Your task to perform on an android device: open app "Truecaller" (install if not already installed) Image 0: 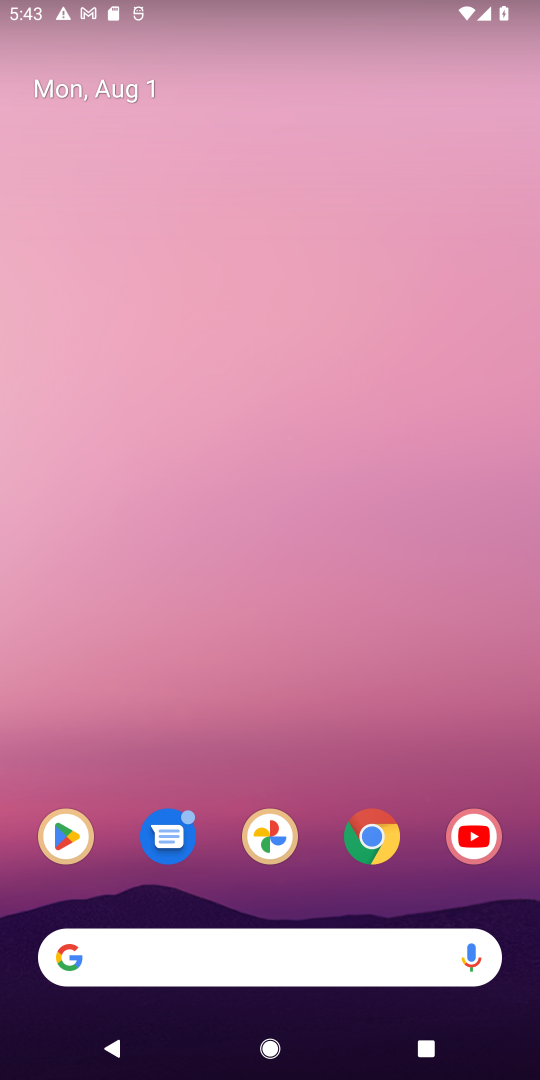
Step 0: click (71, 837)
Your task to perform on an android device: open app "Truecaller" (install if not already installed) Image 1: 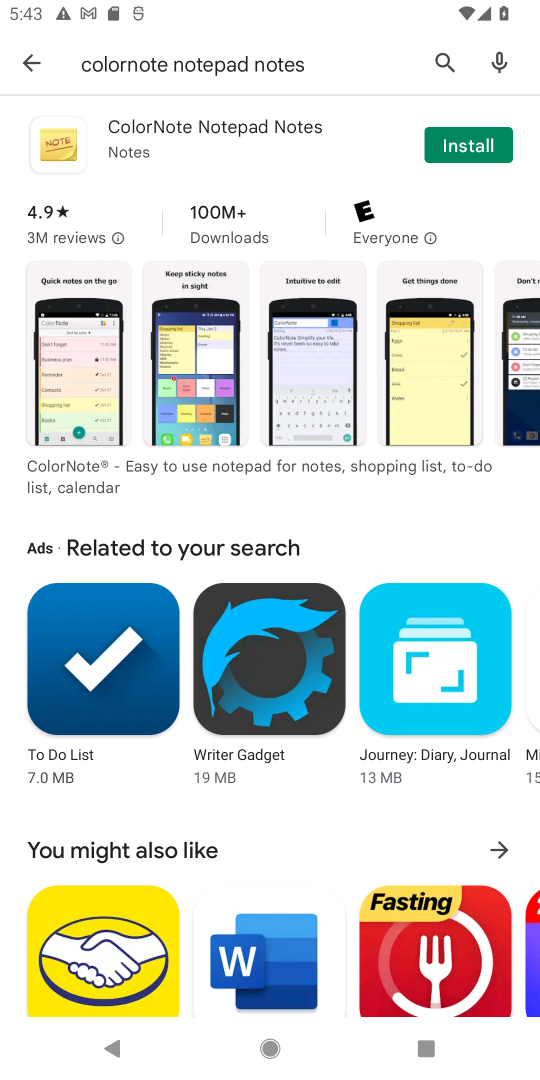
Step 1: click (440, 59)
Your task to perform on an android device: open app "Truecaller" (install if not already installed) Image 2: 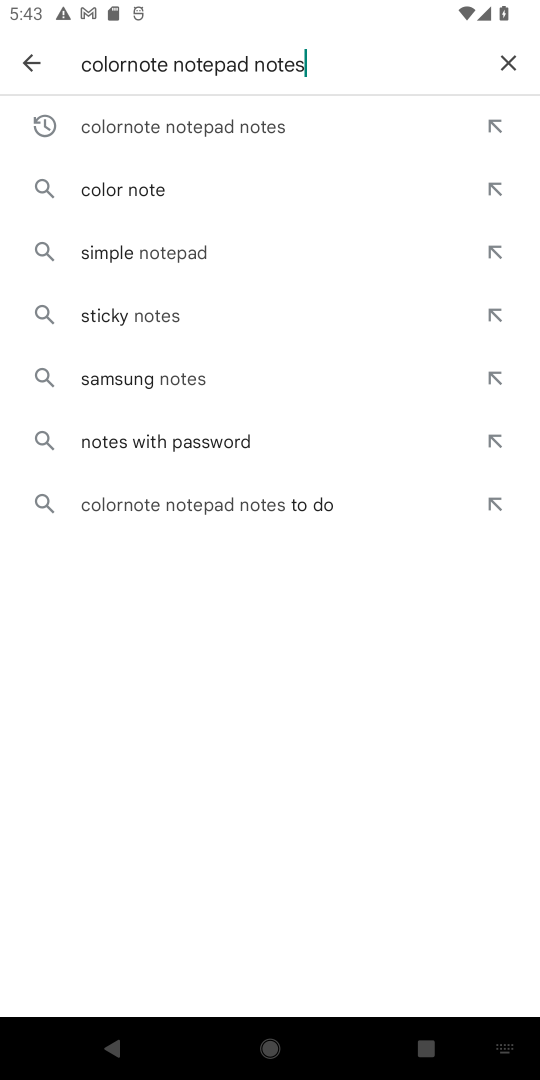
Step 2: click (505, 63)
Your task to perform on an android device: open app "Truecaller" (install if not already installed) Image 3: 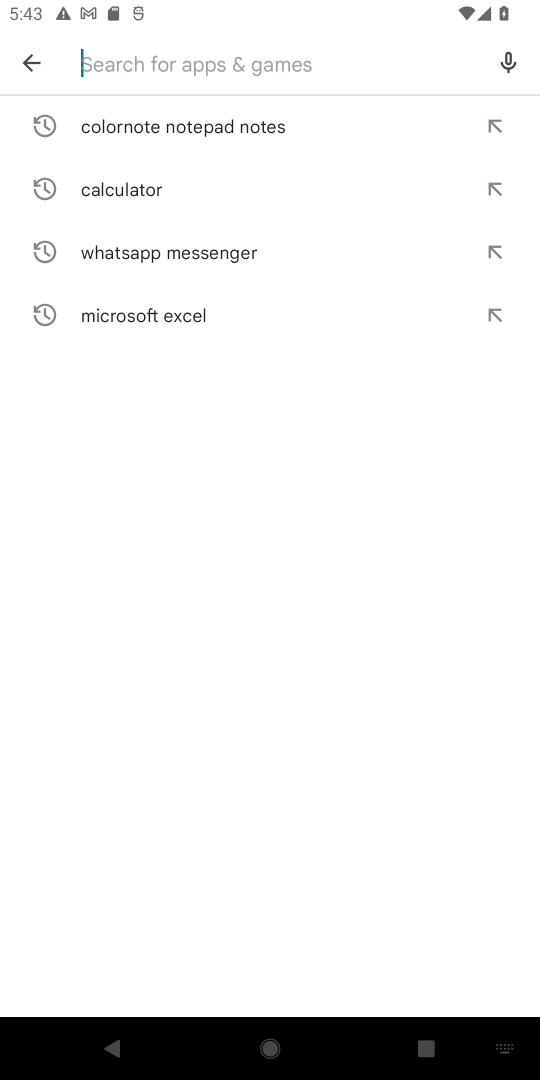
Step 3: type "Truecaller"
Your task to perform on an android device: open app "Truecaller" (install if not already installed) Image 4: 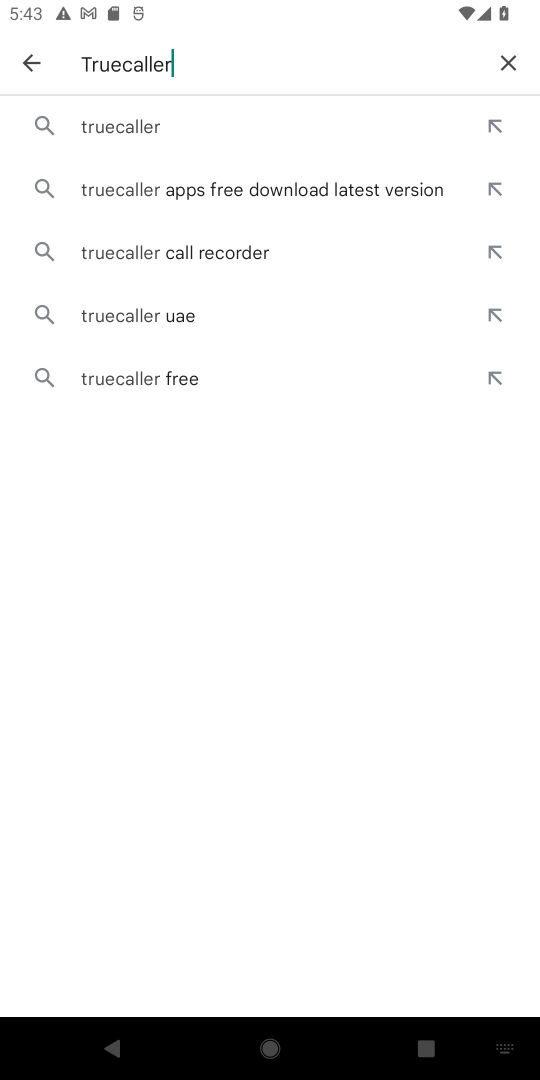
Step 4: click (101, 124)
Your task to perform on an android device: open app "Truecaller" (install if not already installed) Image 5: 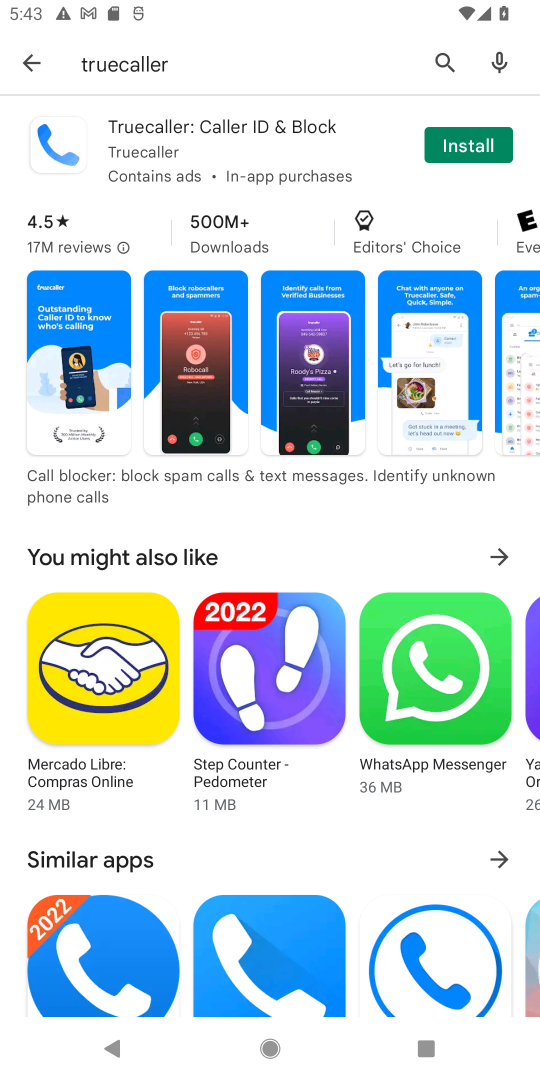
Step 5: click (478, 154)
Your task to perform on an android device: open app "Truecaller" (install if not already installed) Image 6: 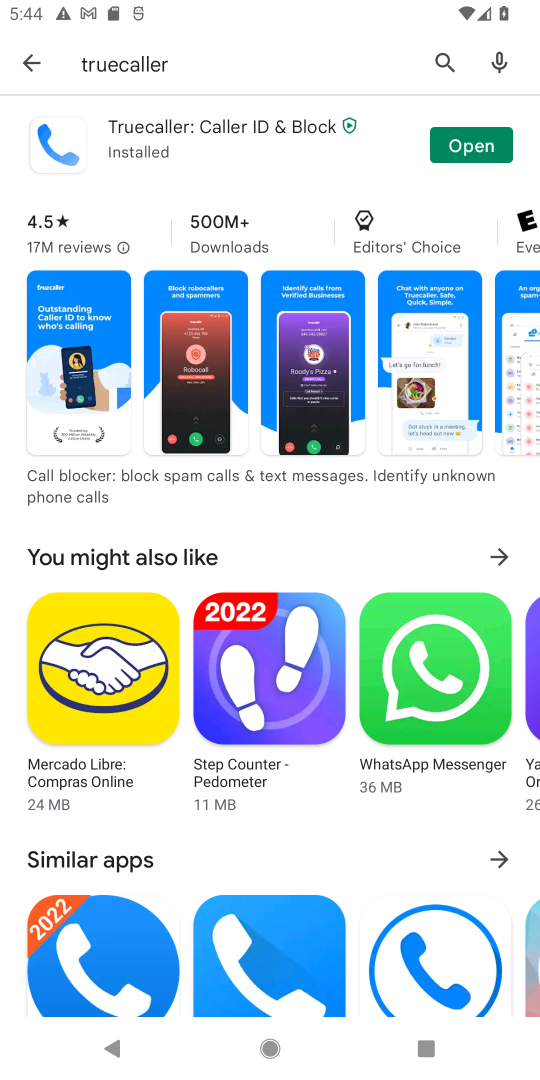
Step 6: click (457, 145)
Your task to perform on an android device: open app "Truecaller" (install if not already installed) Image 7: 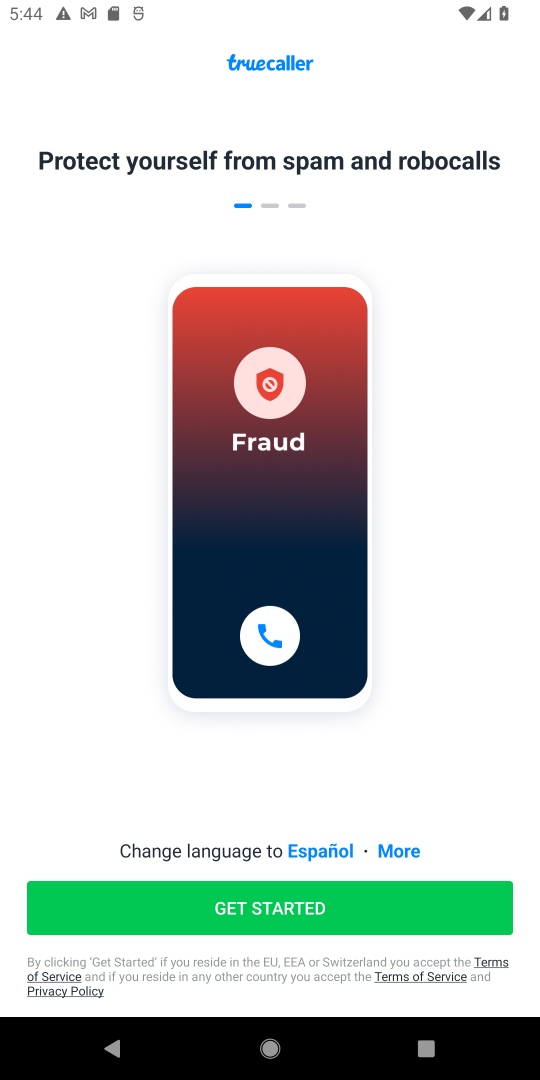
Step 7: task complete